Your task to perform on an android device: What is the capital of Argentina? Image 0: 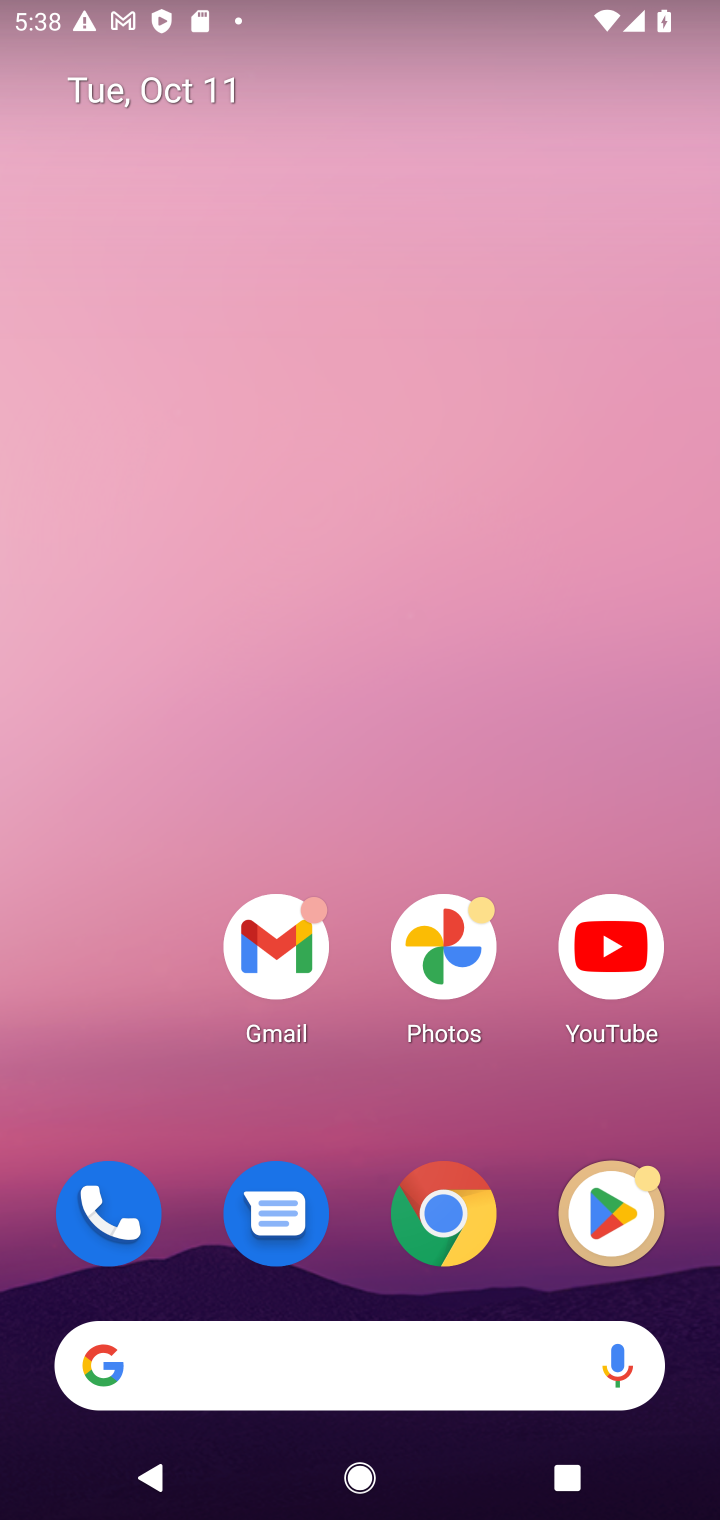
Step 0: drag from (463, 845) to (458, 754)
Your task to perform on an android device: What is the capital of Argentina? Image 1: 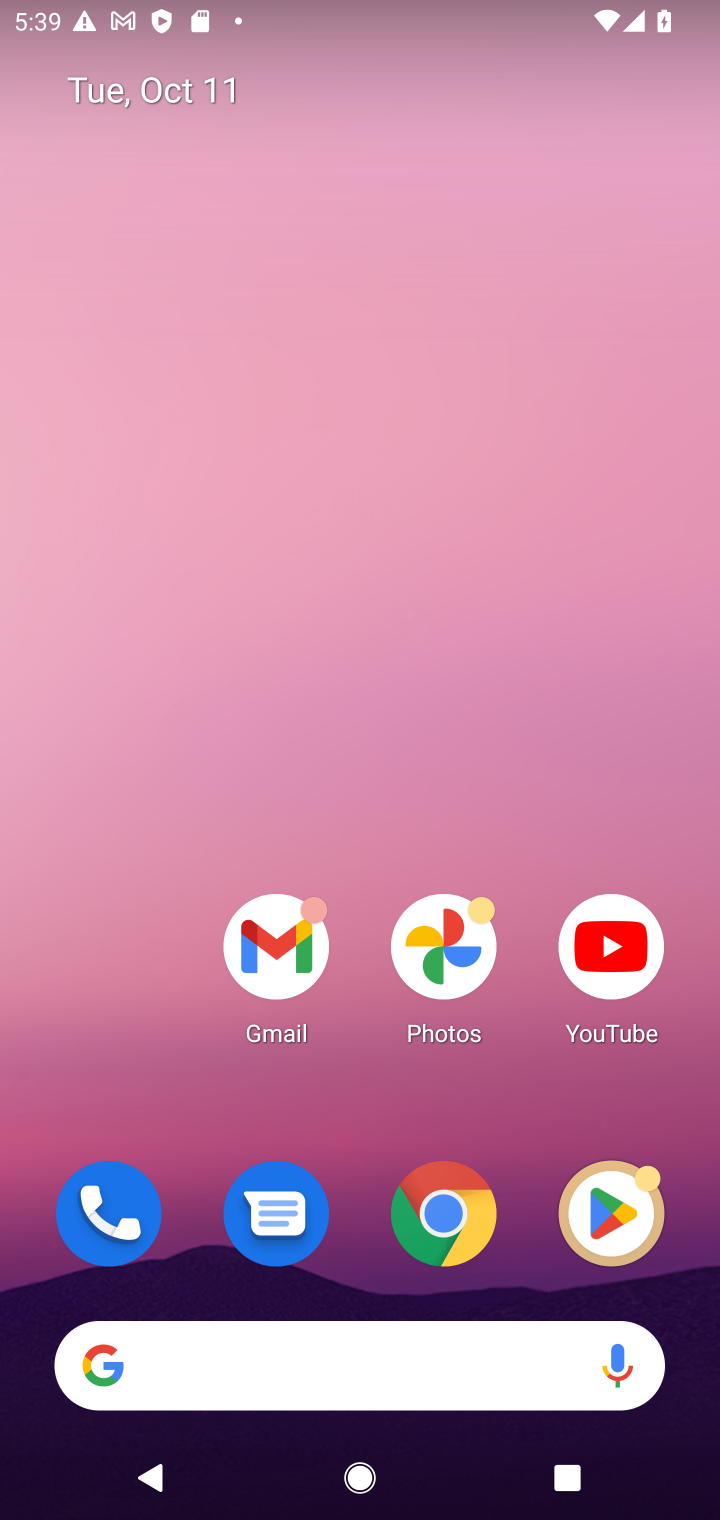
Step 1: drag from (415, 1332) to (415, 362)
Your task to perform on an android device: What is the capital of Argentina? Image 2: 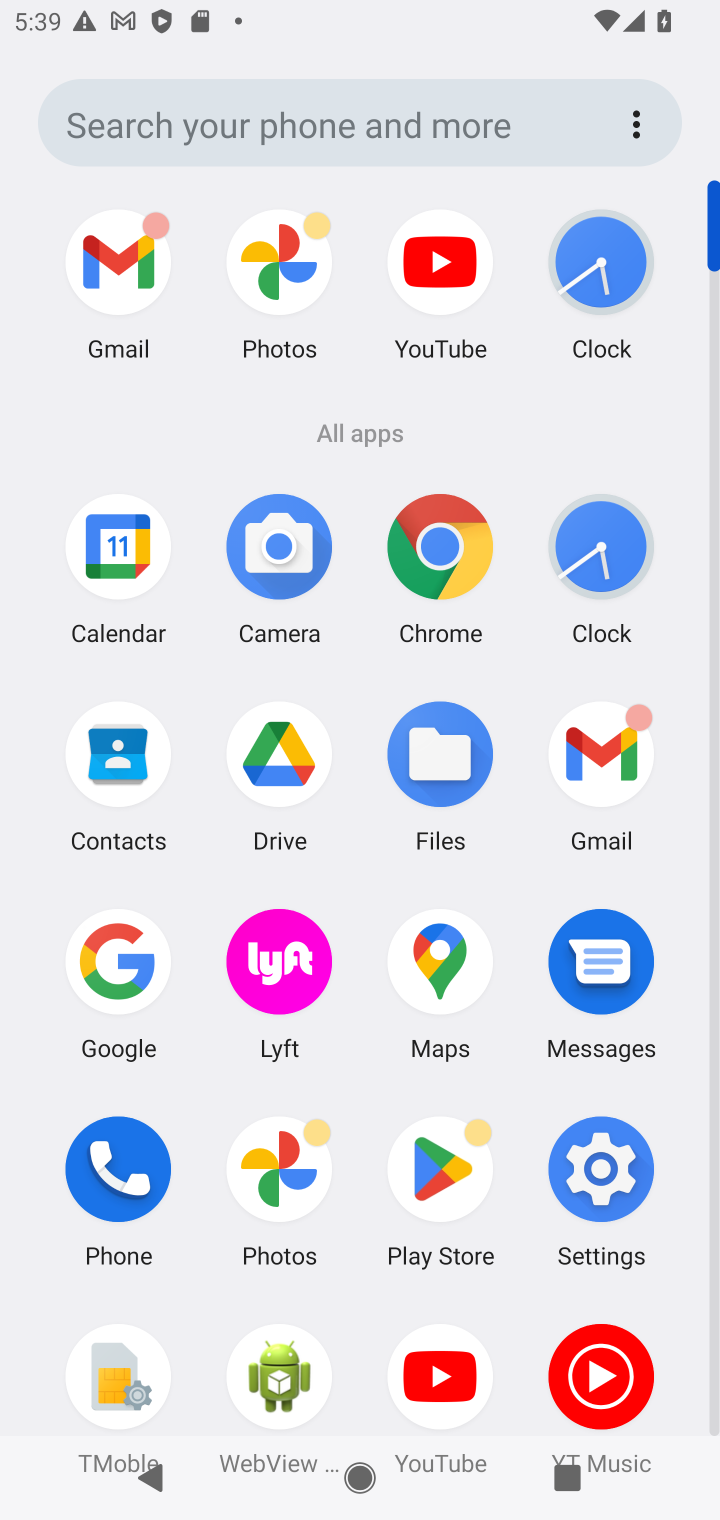
Step 2: click (108, 977)
Your task to perform on an android device: What is the capital of Argentina? Image 3: 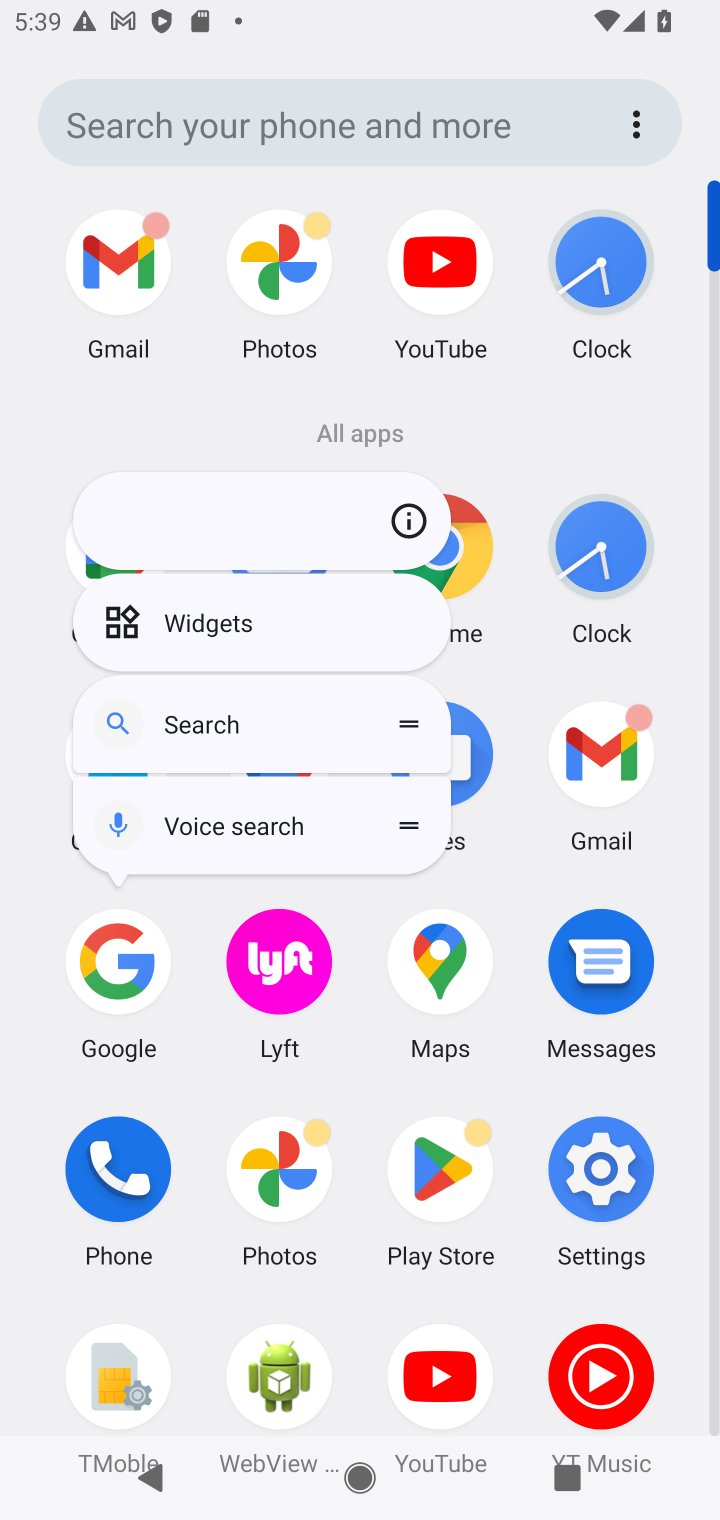
Step 3: click (117, 973)
Your task to perform on an android device: What is the capital of Argentina? Image 4: 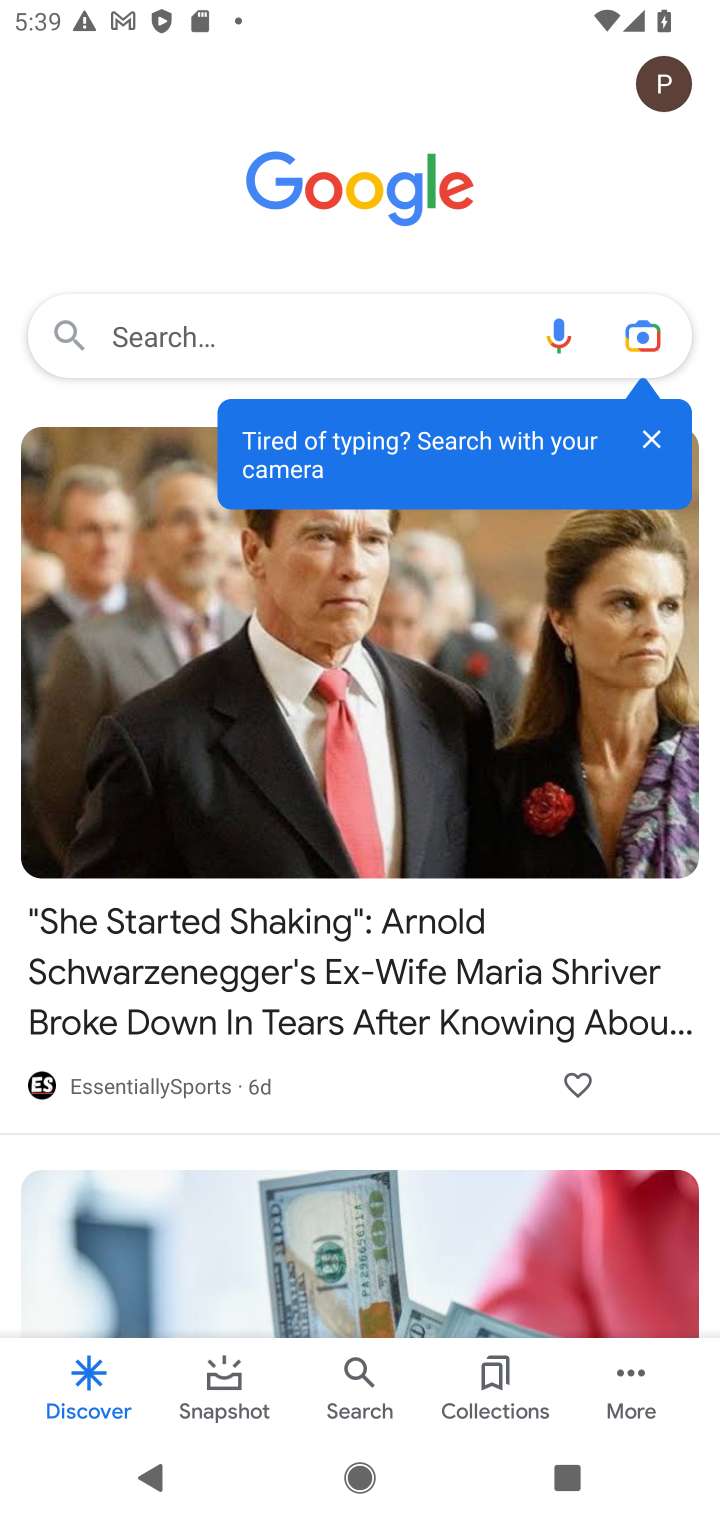
Step 4: click (192, 339)
Your task to perform on an android device: What is the capital of Argentina? Image 5: 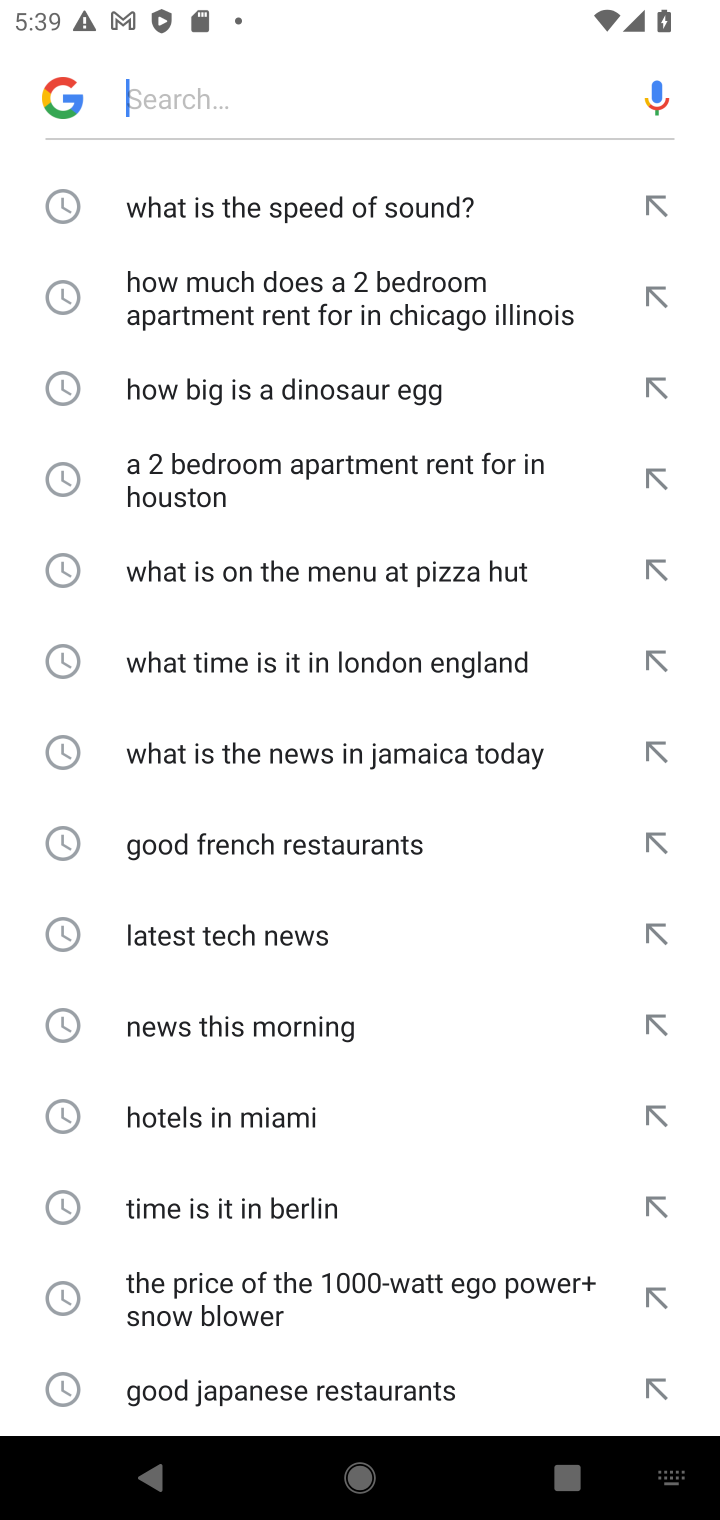
Step 5: type "What is the capital of Argentina?"
Your task to perform on an android device: What is the capital of Argentina? Image 6: 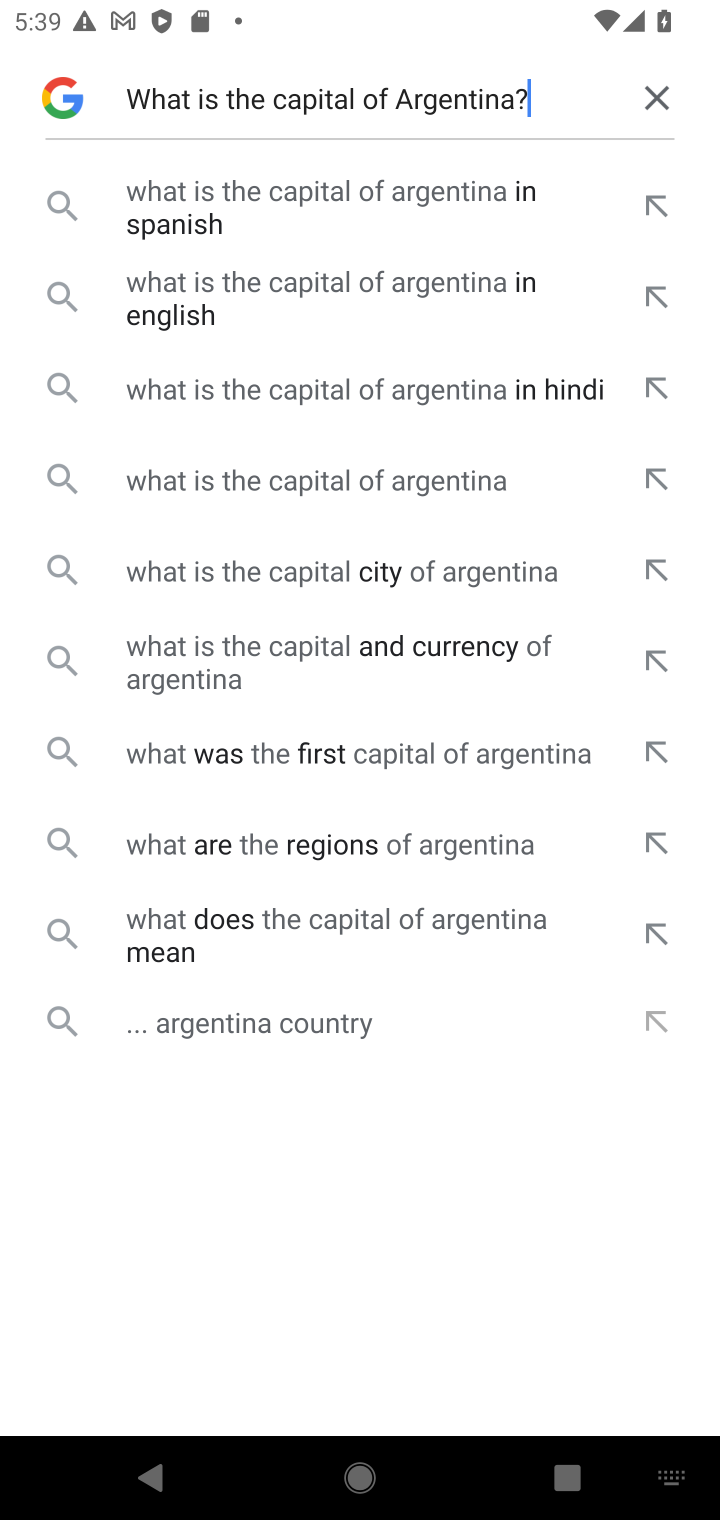
Step 6: click (366, 201)
Your task to perform on an android device: What is the capital of Argentina? Image 7: 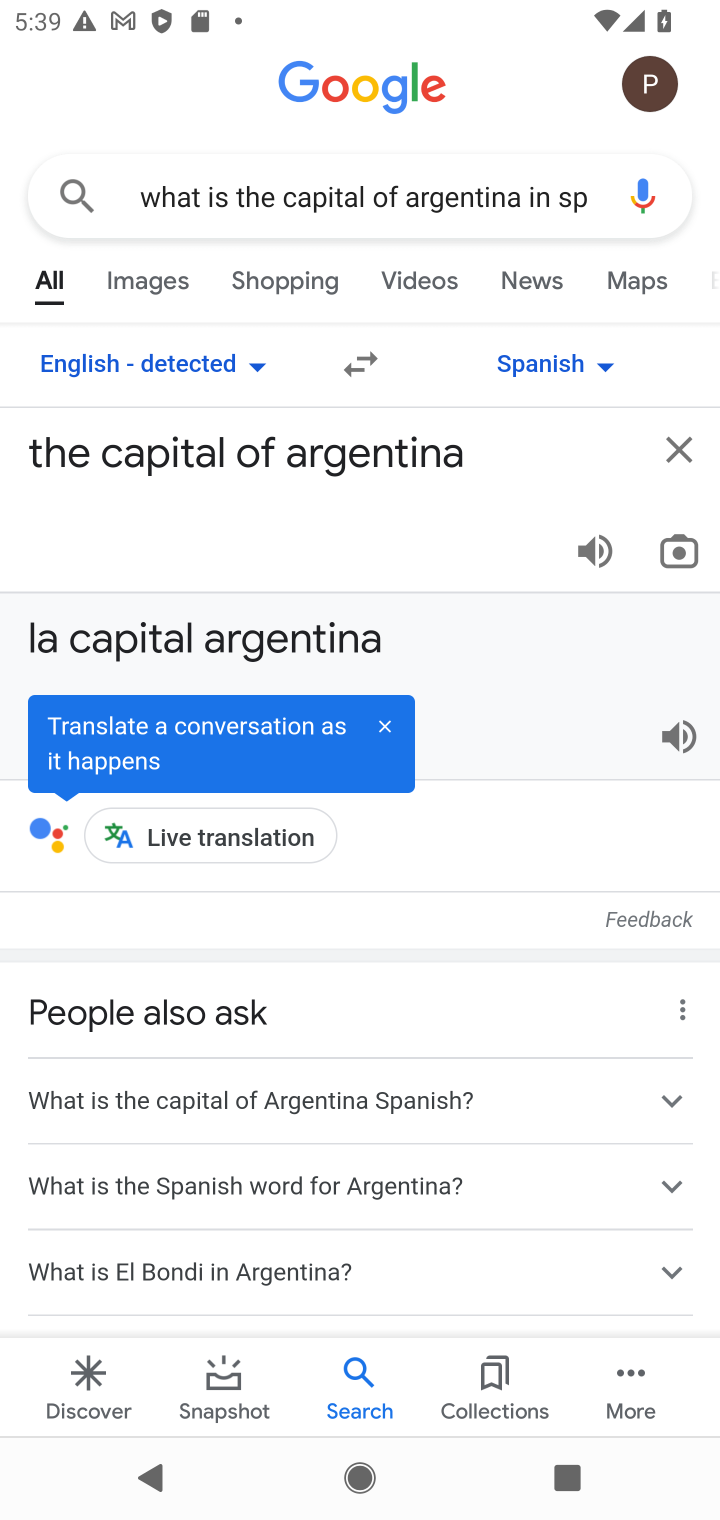
Step 7: task complete